Your task to perform on an android device: delete location history Image 0: 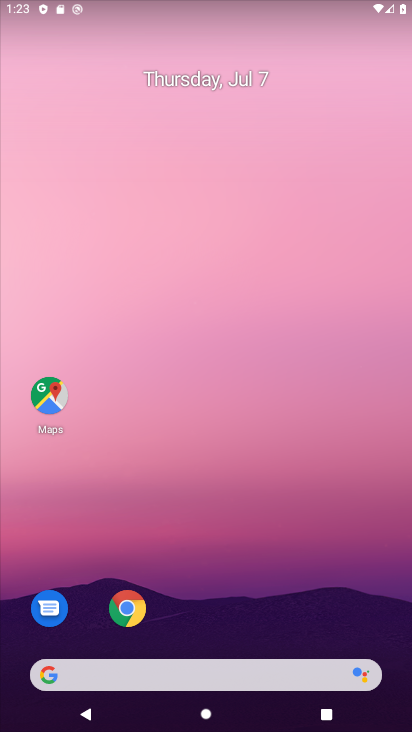
Step 0: drag from (311, 646) to (410, 269)
Your task to perform on an android device: delete location history Image 1: 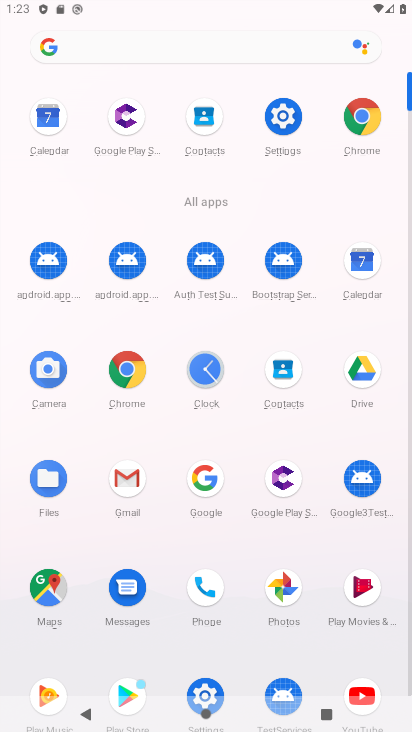
Step 1: click (43, 590)
Your task to perform on an android device: delete location history Image 2: 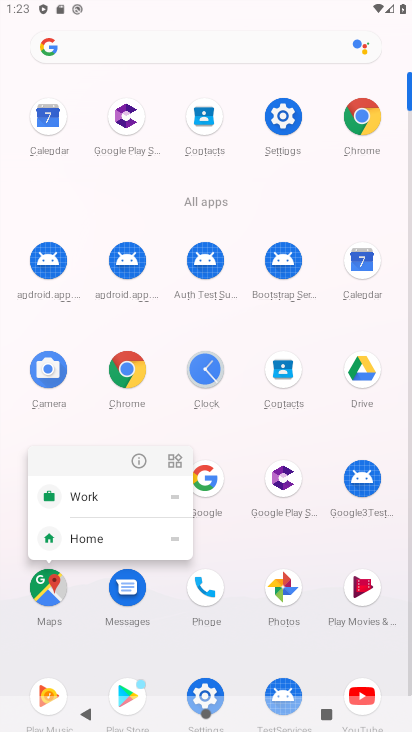
Step 2: click (43, 590)
Your task to perform on an android device: delete location history Image 3: 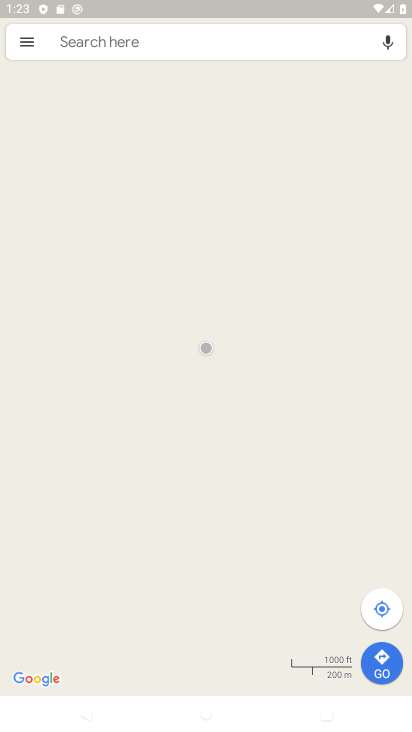
Step 3: click (20, 37)
Your task to perform on an android device: delete location history Image 4: 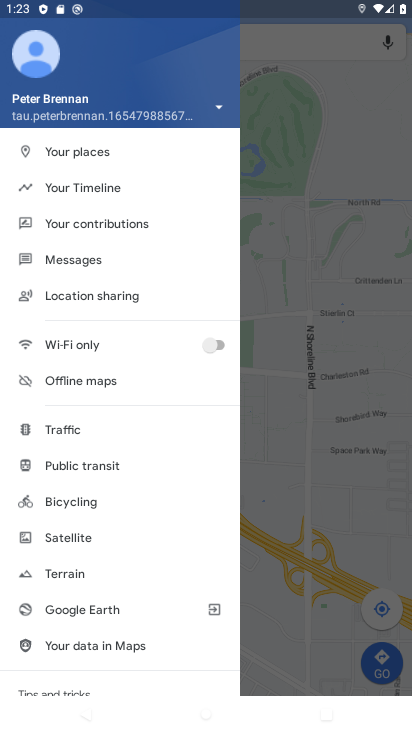
Step 4: click (107, 190)
Your task to perform on an android device: delete location history Image 5: 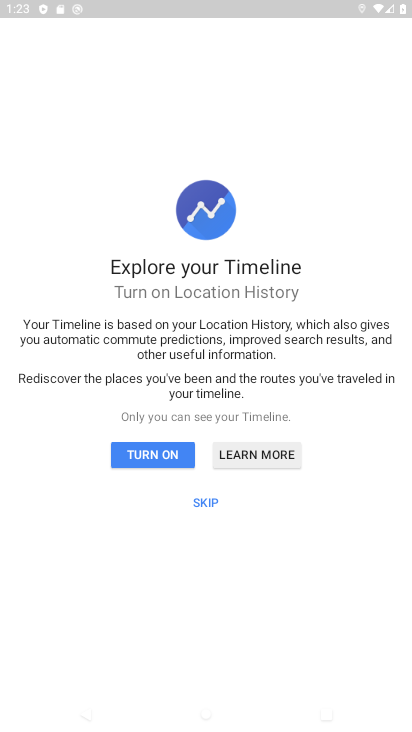
Step 5: click (213, 503)
Your task to perform on an android device: delete location history Image 6: 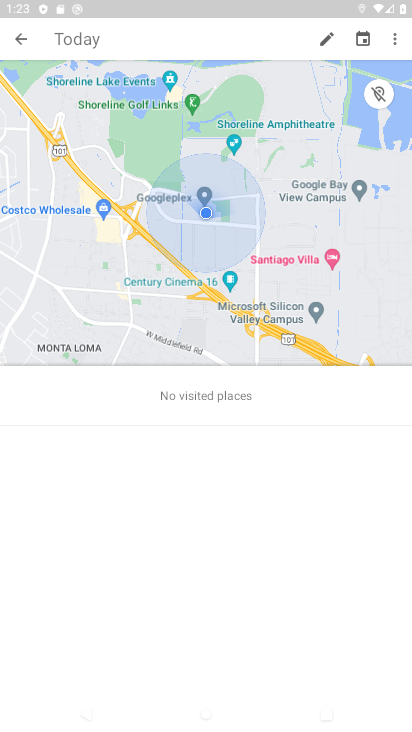
Step 6: click (395, 42)
Your task to perform on an android device: delete location history Image 7: 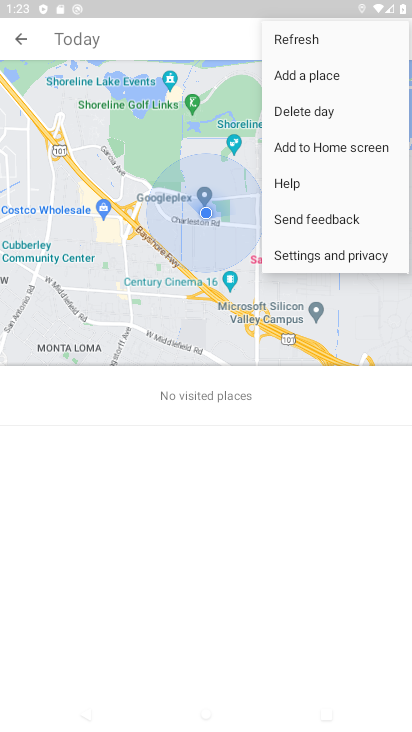
Step 7: click (320, 257)
Your task to perform on an android device: delete location history Image 8: 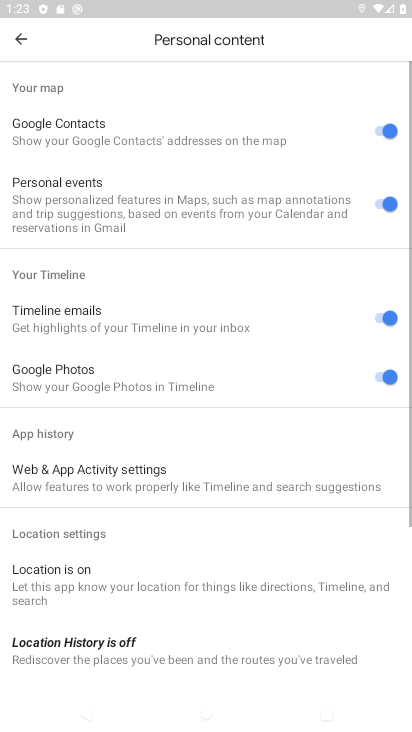
Step 8: drag from (100, 649) to (167, 313)
Your task to perform on an android device: delete location history Image 9: 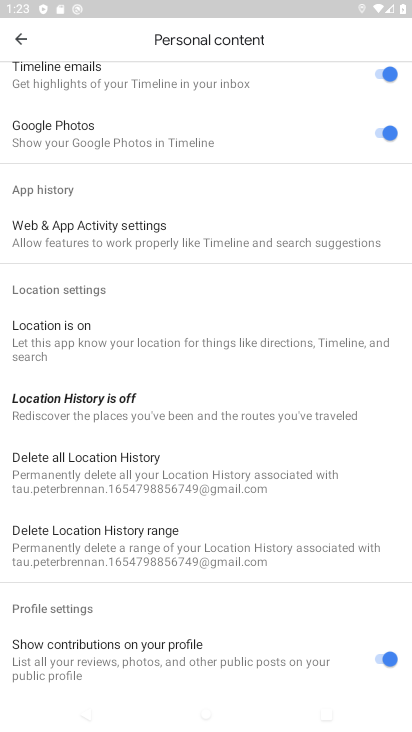
Step 9: click (132, 460)
Your task to perform on an android device: delete location history Image 10: 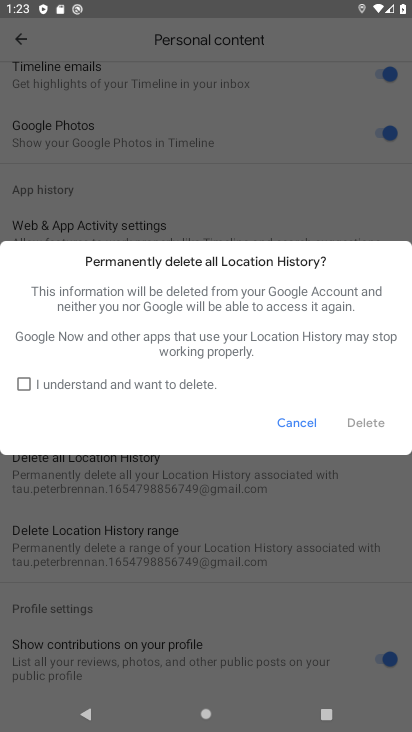
Step 10: click (27, 385)
Your task to perform on an android device: delete location history Image 11: 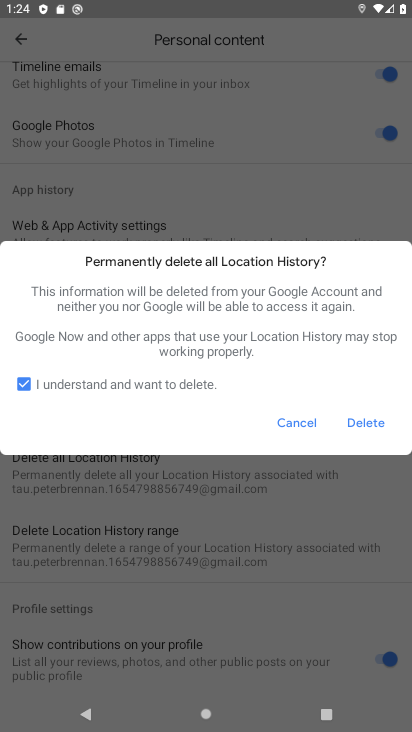
Step 11: click (359, 418)
Your task to perform on an android device: delete location history Image 12: 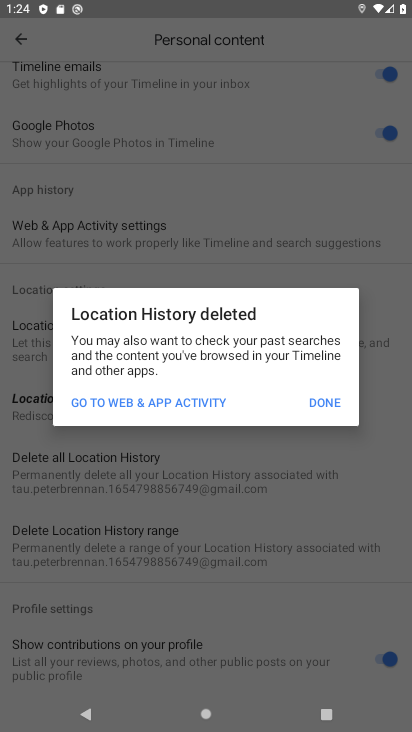
Step 12: click (329, 396)
Your task to perform on an android device: delete location history Image 13: 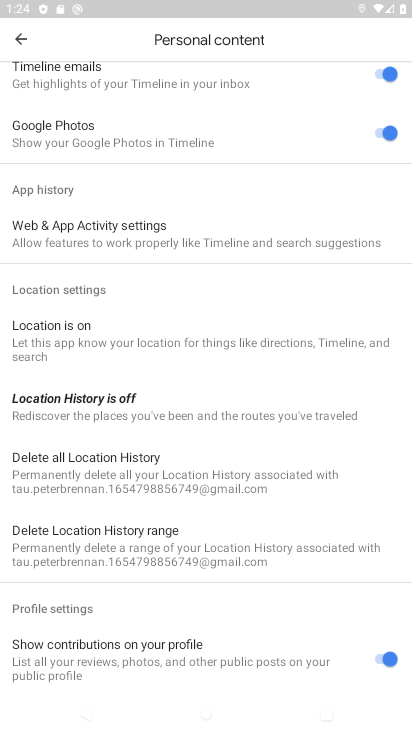
Step 13: task complete